Your task to perform on an android device: turn off data saver in the chrome app Image 0: 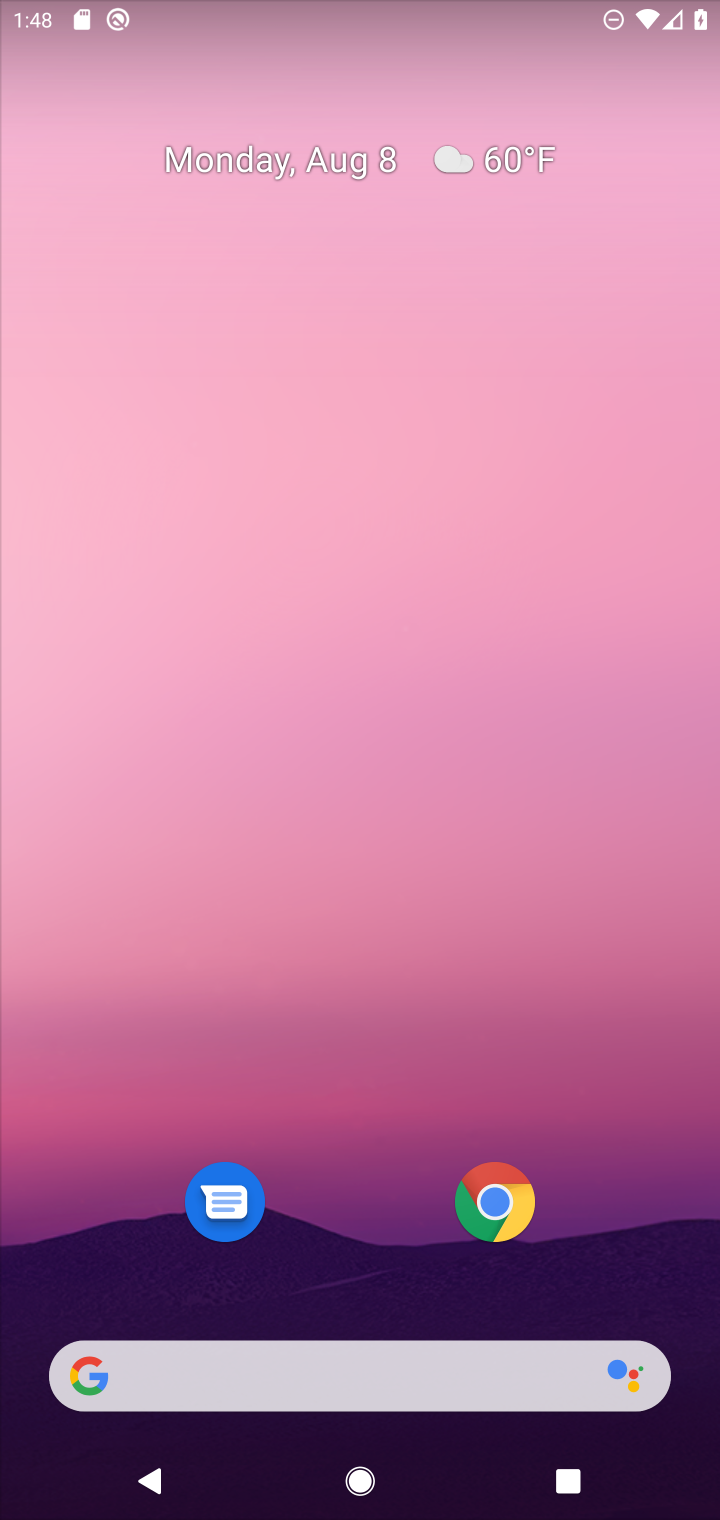
Step 0: drag from (627, 1107) to (668, 171)
Your task to perform on an android device: turn off data saver in the chrome app Image 1: 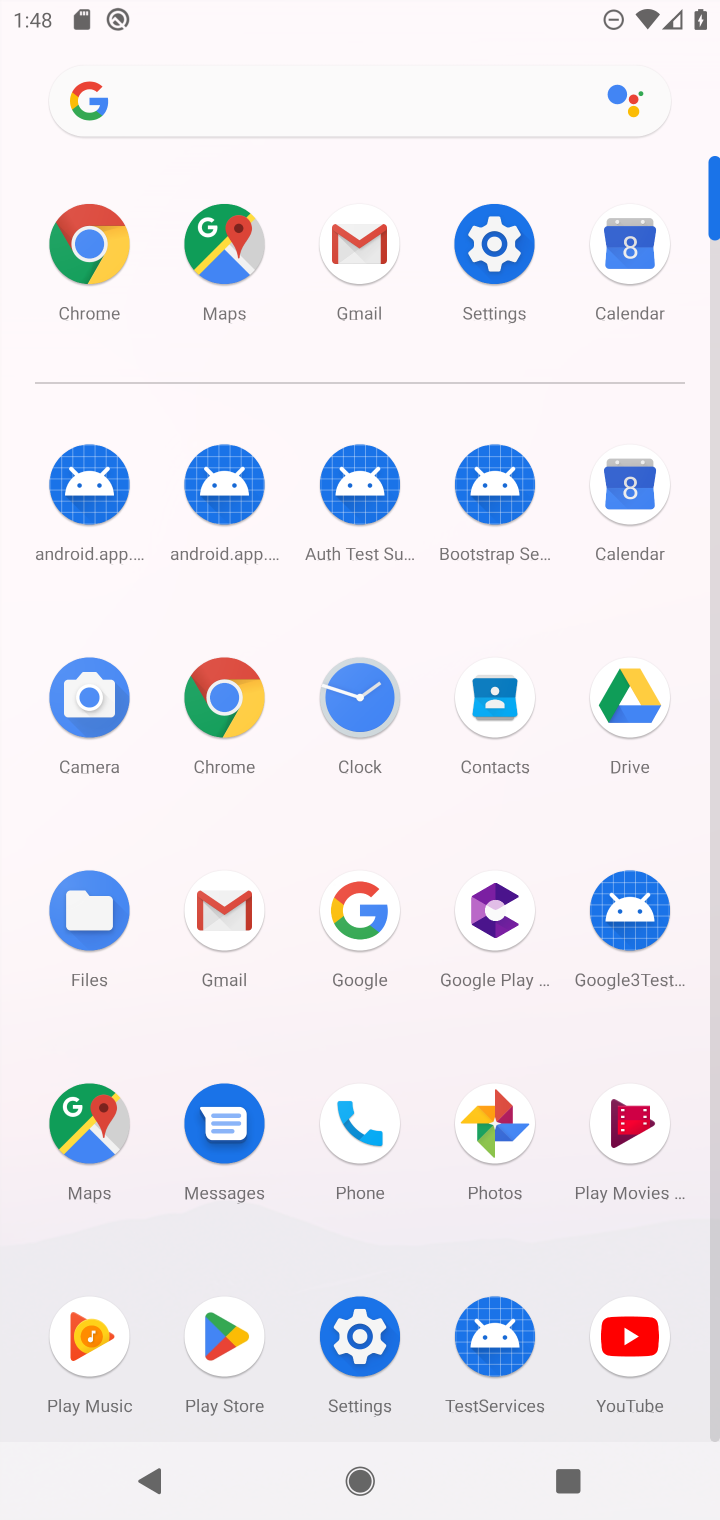
Step 1: click (211, 700)
Your task to perform on an android device: turn off data saver in the chrome app Image 2: 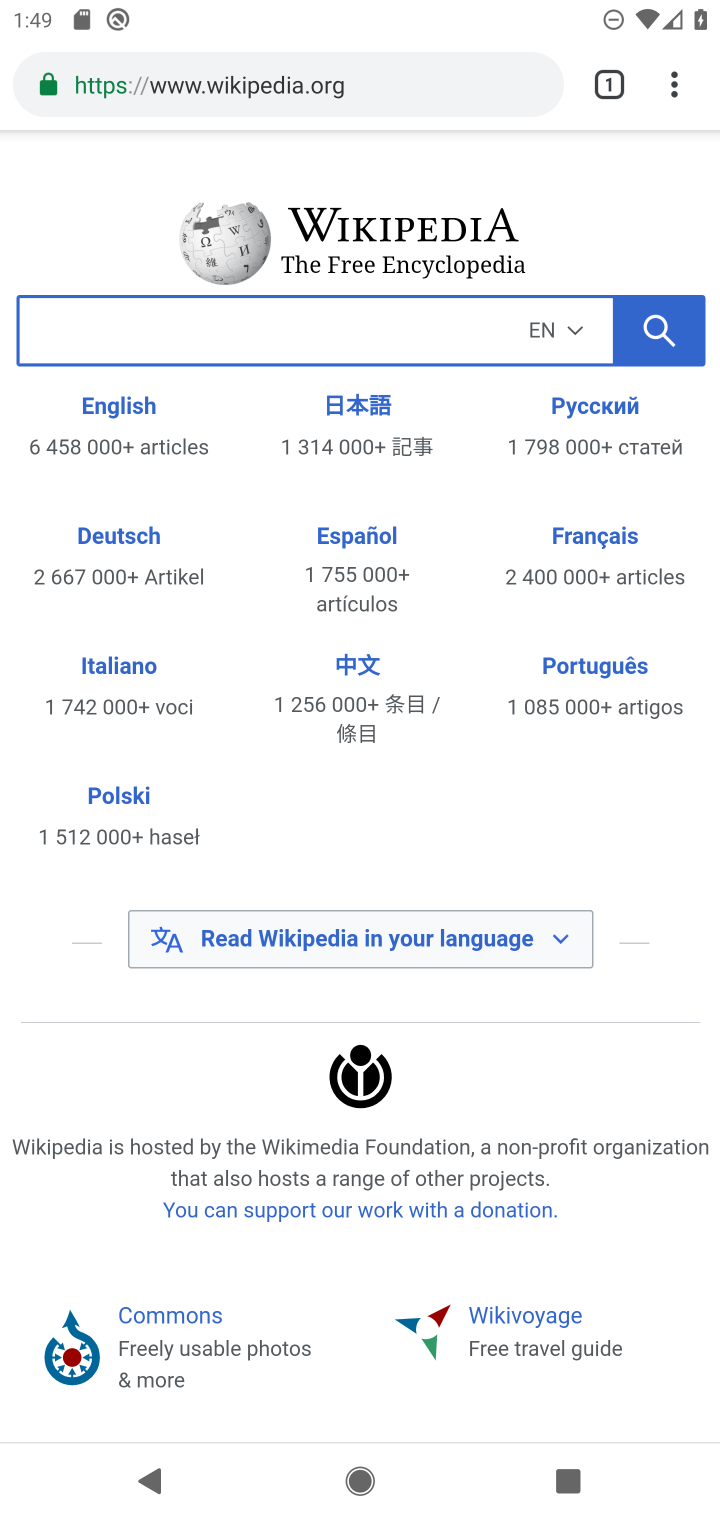
Step 2: click (673, 92)
Your task to perform on an android device: turn off data saver in the chrome app Image 3: 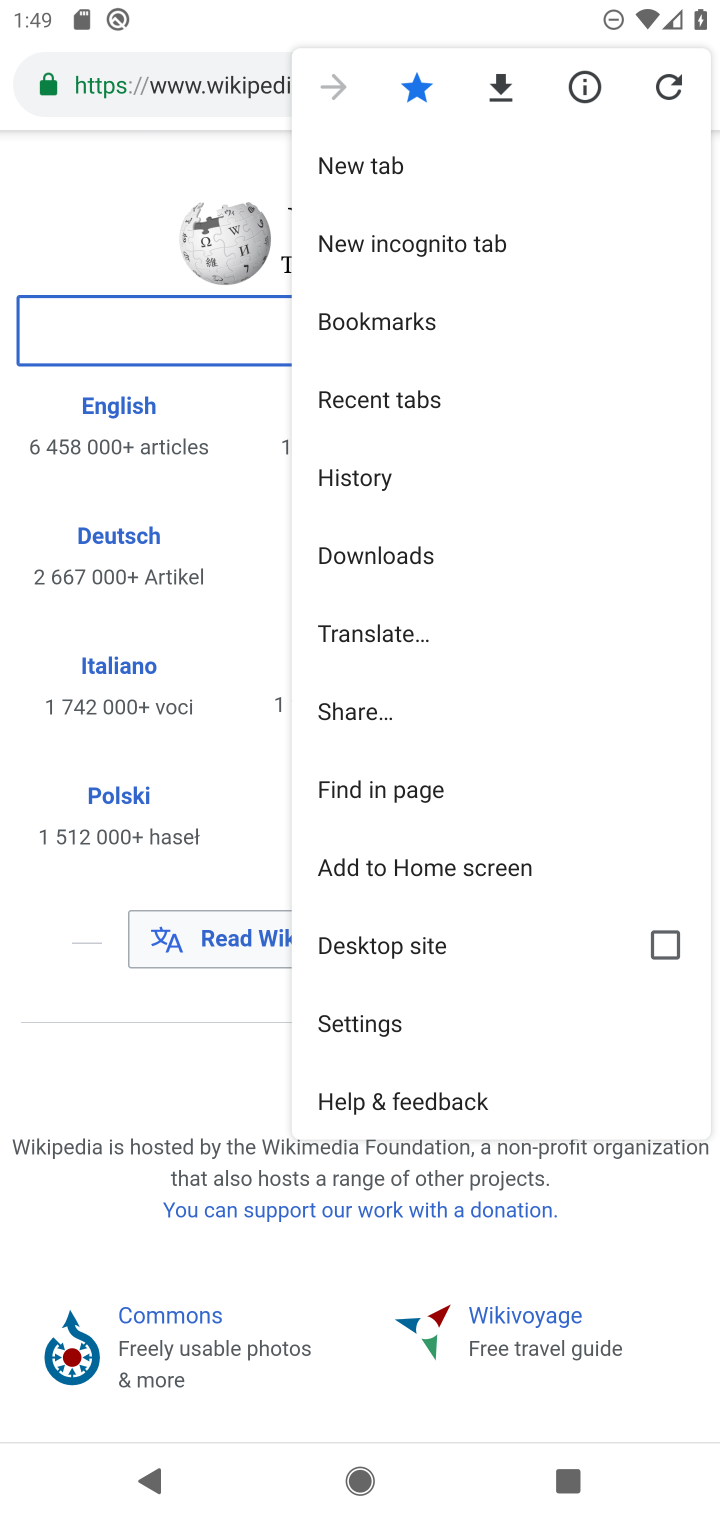
Step 3: click (450, 1024)
Your task to perform on an android device: turn off data saver in the chrome app Image 4: 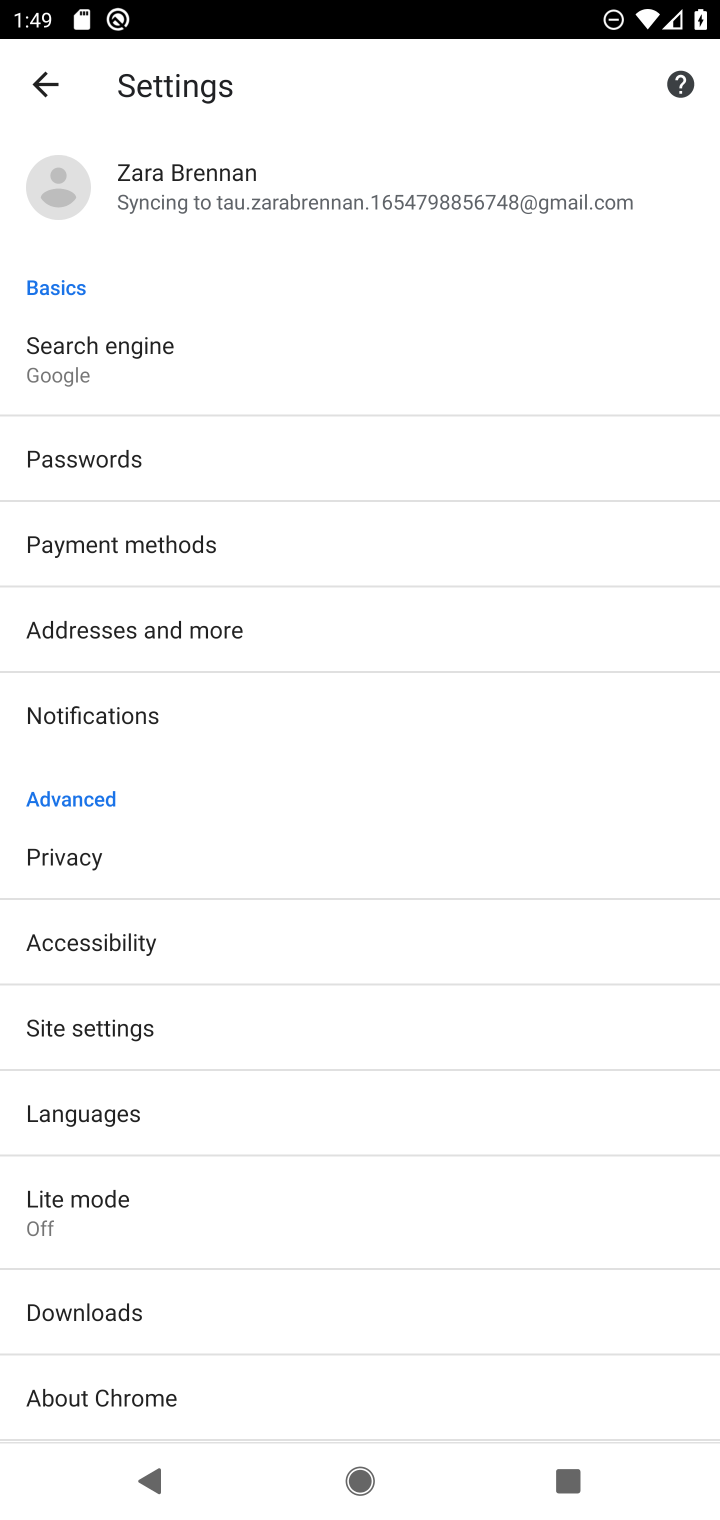
Step 4: drag from (518, 840) to (526, 742)
Your task to perform on an android device: turn off data saver in the chrome app Image 5: 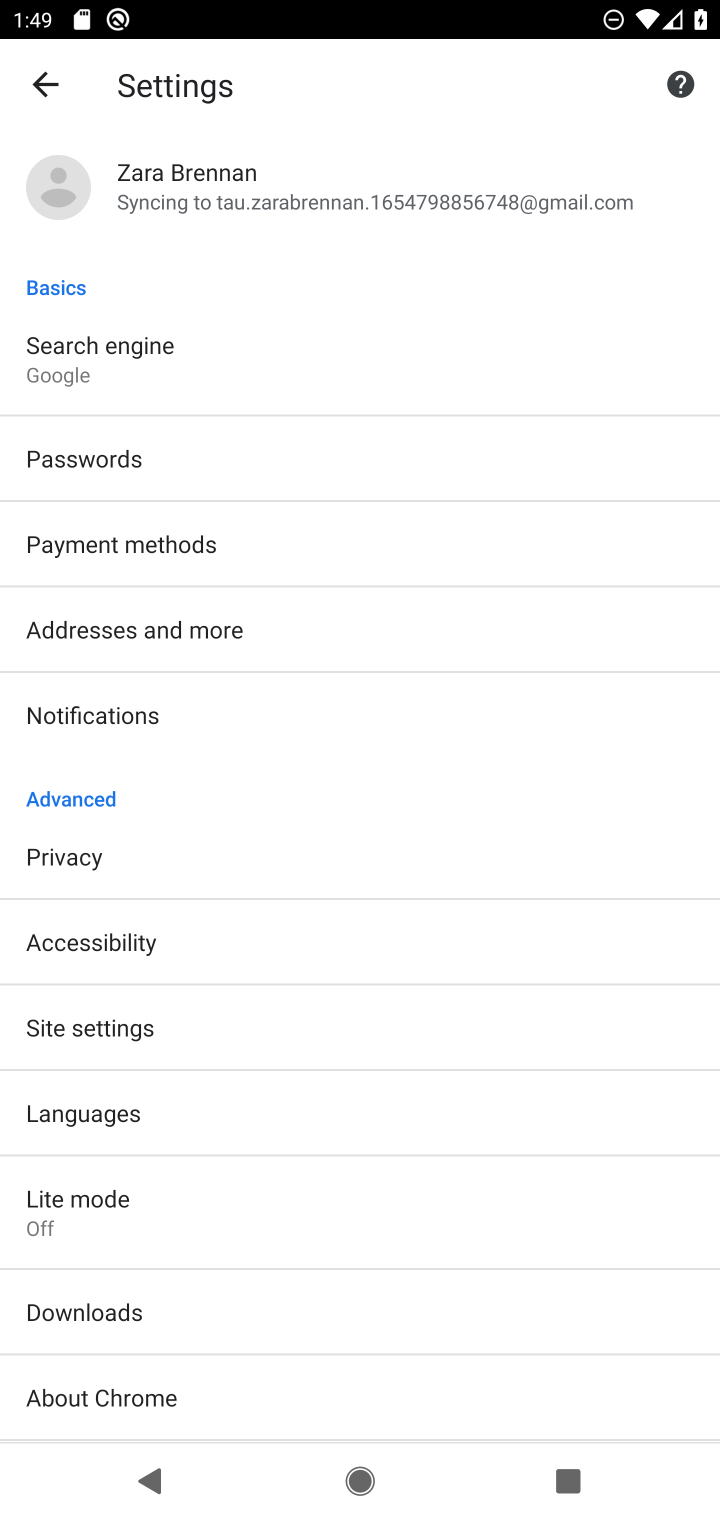
Step 5: drag from (517, 1020) to (523, 728)
Your task to perform on an android device: turn off data saver in the chrome app Image 6: 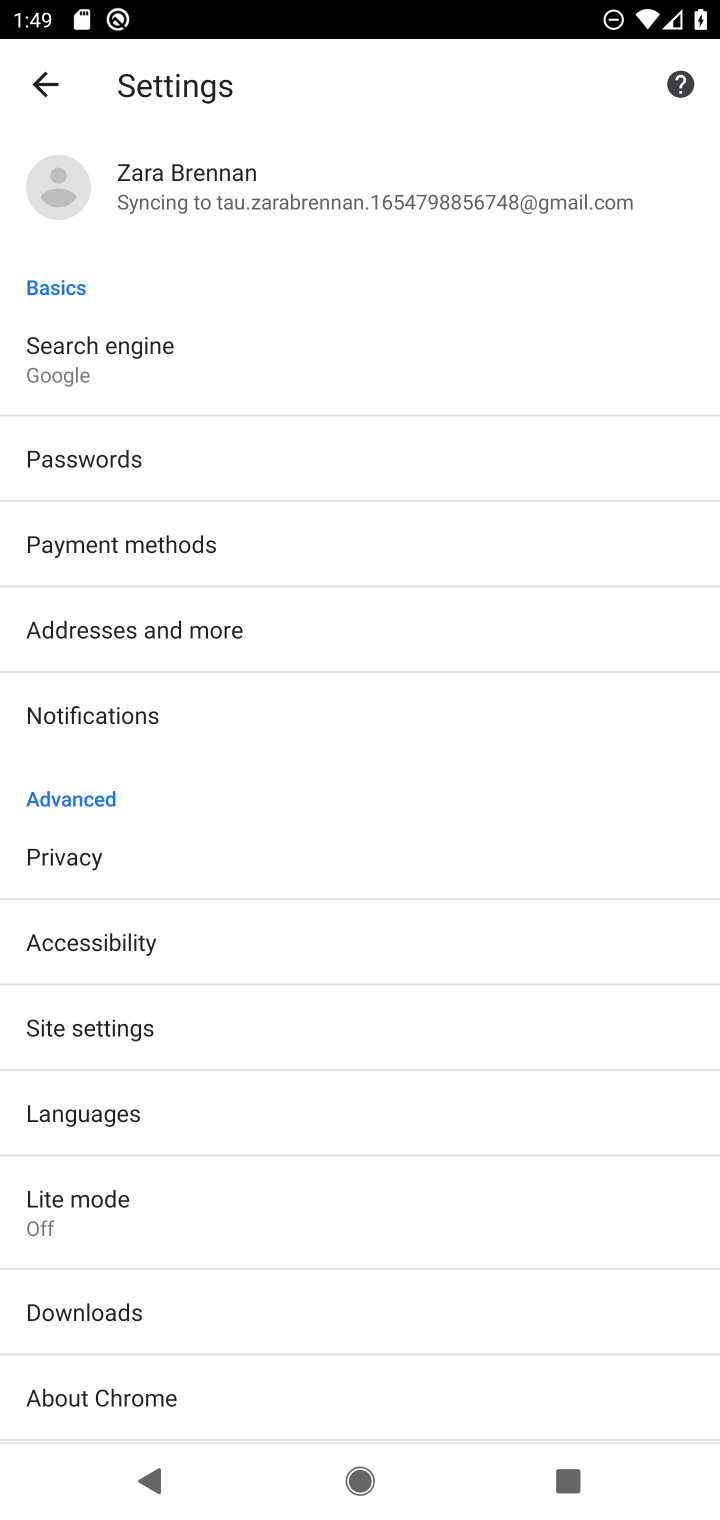
Step 6: click (444, 1222)
Your task to perform on an android device: turn off data saver in the chrome app Image 7: 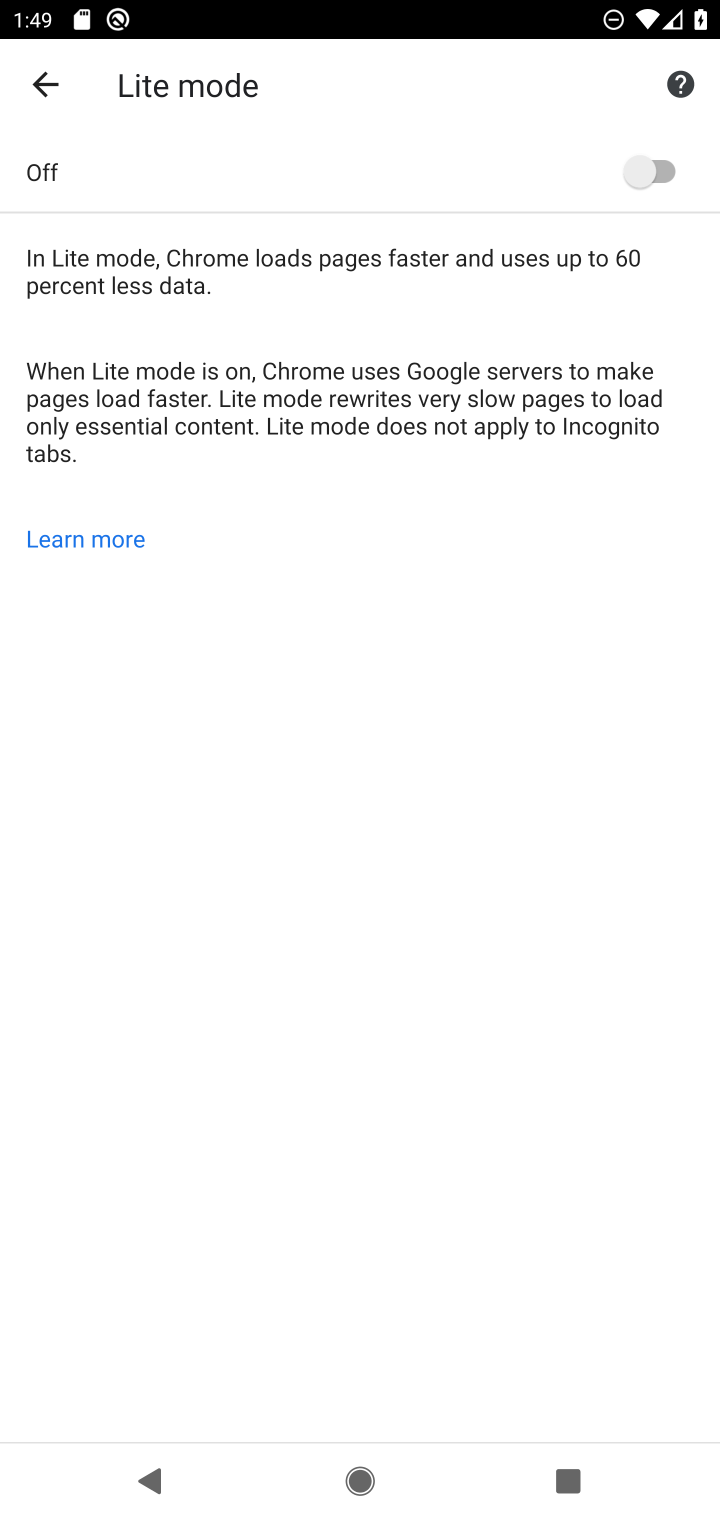
Step 7: task complete